Your task to perform on an android device: open wifi settings Image 0: 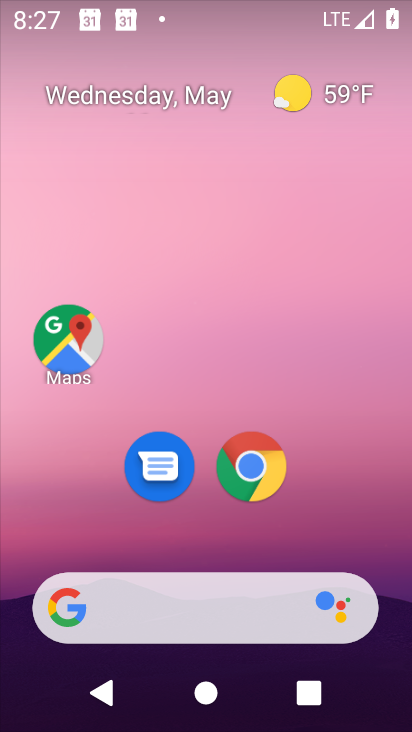
Step 0: drag from (331, 563) to (320, 287)
Your task to perform on an android device: open wifi settings Image 1: 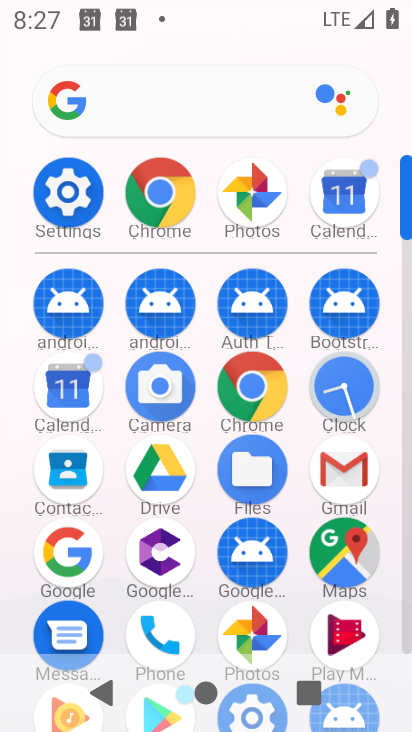
Step 1: click (71, 189)
Your task to perform on an android device: open wifi settings Image 2: 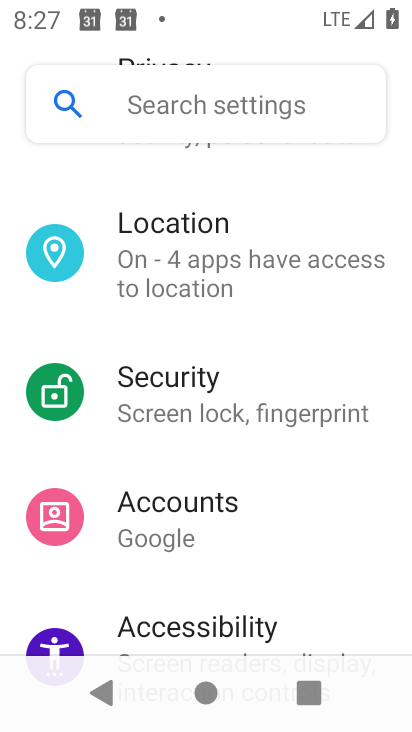
Step 2: drag from (188, 242) to (247, 648)
Your task to perform on an android device: open wifi settings Image 3: 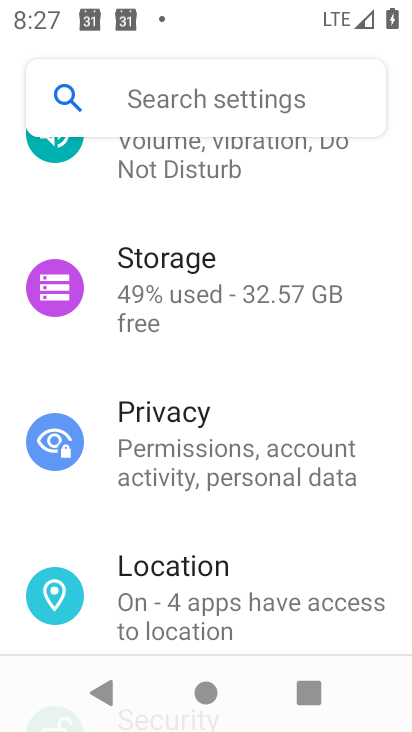
Step 3: drag from (217, 189) to (257, 625)
Your task to perform on an android device: open wifi settings Image 4: 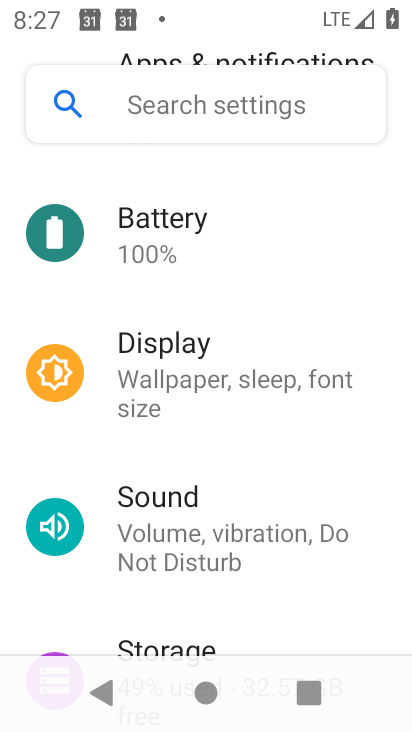
Step 4: drag from (236, 261) to (275, 616)
Your task to perform on an android device: open wifi settings Image 5: 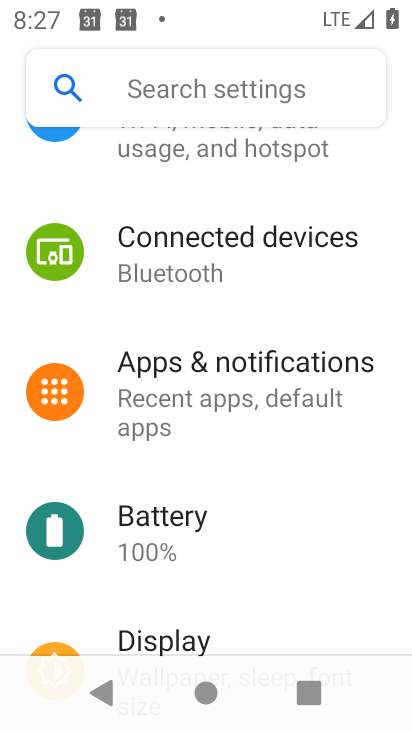
Step 5: drag from (187, 207) to (190, 623)
Your task to perform on an android device: open wifi settings Image 6: 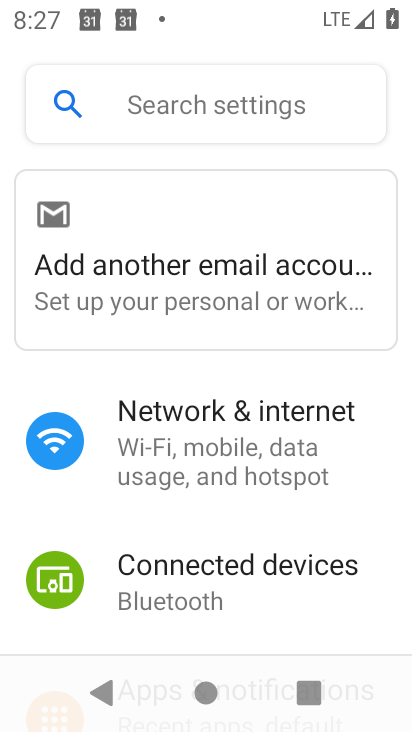
Step 6: click (160, 429)
Your task to perform on an android device: open wifi settings Image 7: 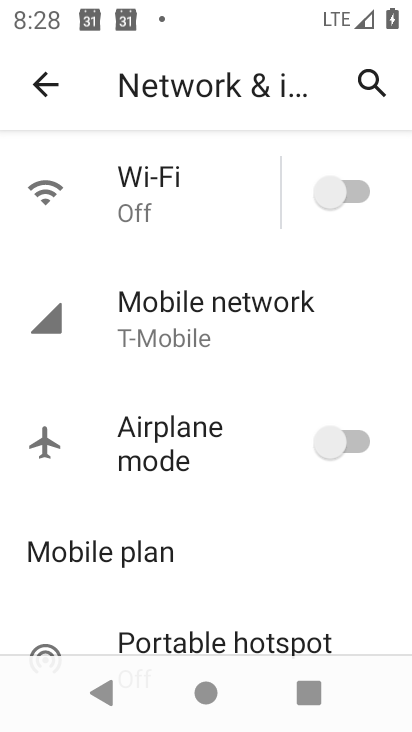
Step 7: task complete